Your task to perform on an android device: open a bookmark in the chrome app Image 0: 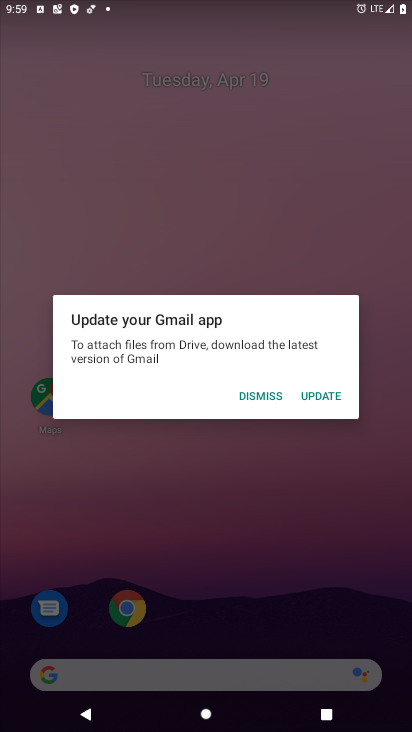
Step 0: press home button
Your task to perform on an android device: open a bookmark in the chrome app Image 1: 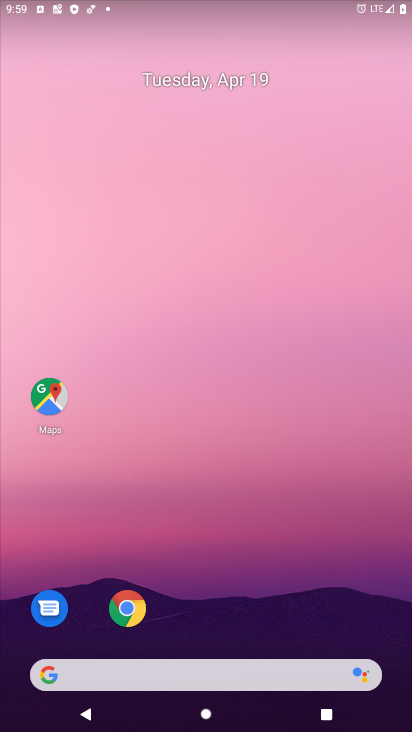
Step 1: click (122, 613)
Your task to perform on an android device: open a bookmark in the chrome app Image 2: 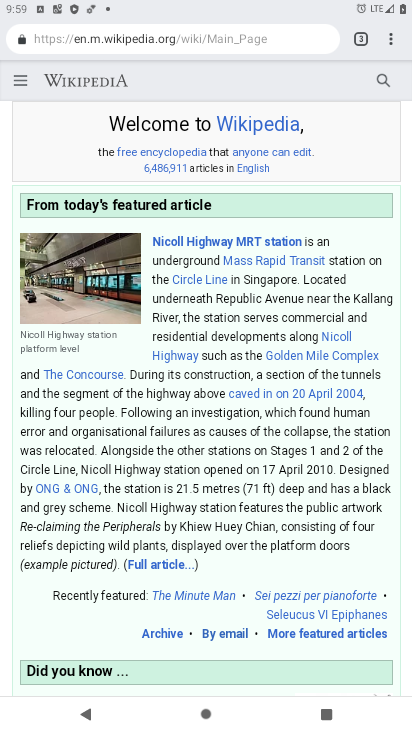
Step 2: click (389, 39)
Your task to perform on an android device: open a bookmark in the chrome app Image 3: 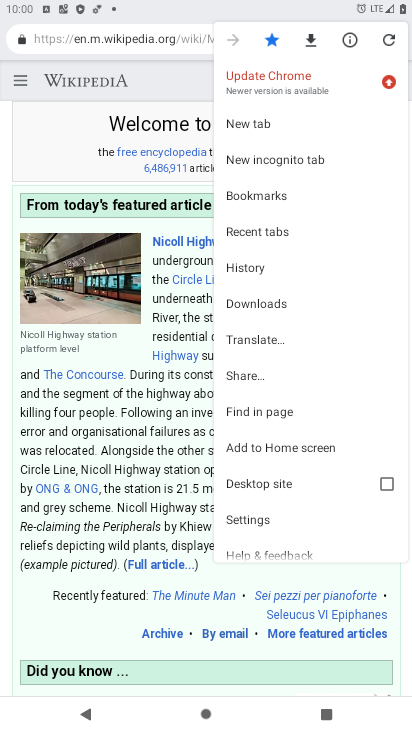
Step 3: click (250, 196)
Your task to perform on an android device: open a bookmark in the chrome app Image 4: 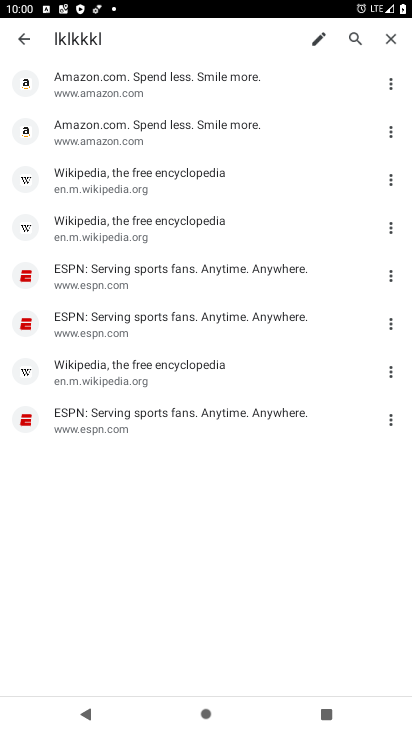
Step 4: task complete